Your task to perform on an android device: Show me productivity apps on the Play Store Image 0: 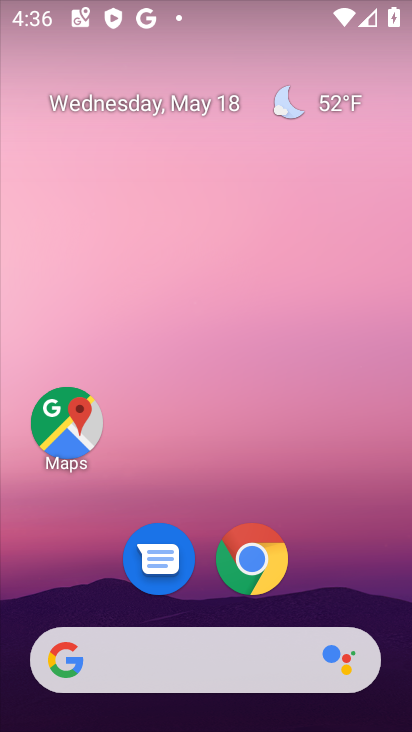
Step 0: drag from (192, 541) to (269, 25)
Your task to perform on an android device: Show me productivity apps on the Play Store Image 1: 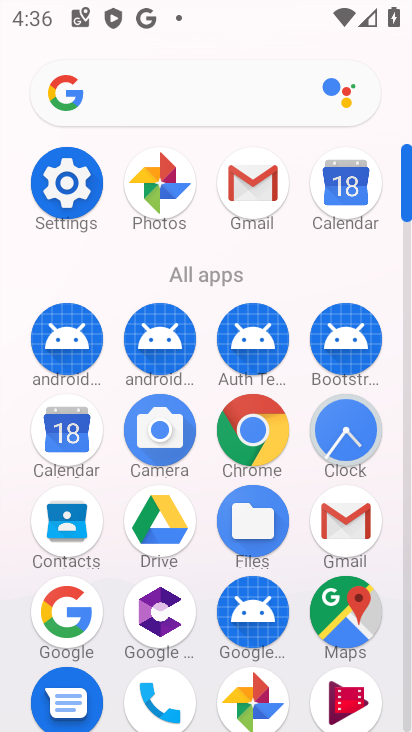
Step 1: drag from (183, 610) to (252, 124)
Your task to perform on an android device: Show me productivity apps on the Play Store Image 2: 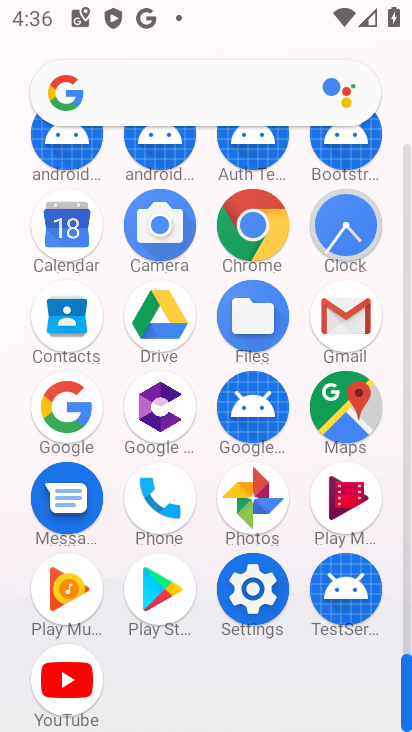
Step 2: click (148, 565)
Your task to perform on an android device: Show me productivity apps on the Play Store Image 3: 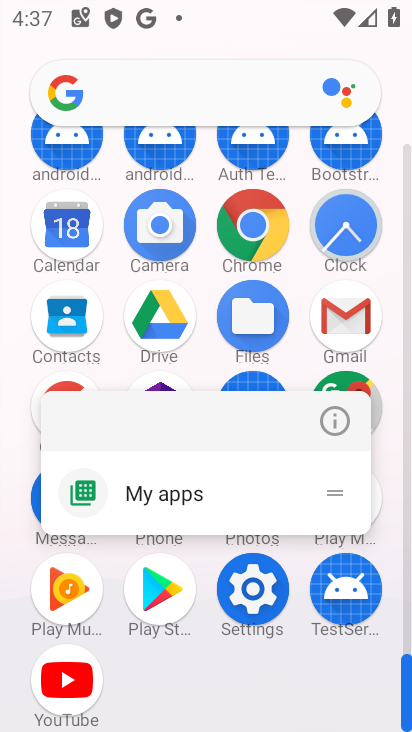
Step 3: click (156, 581)
Your task to perform on an android device: Show me productivity apps on the Play Store Image 4: 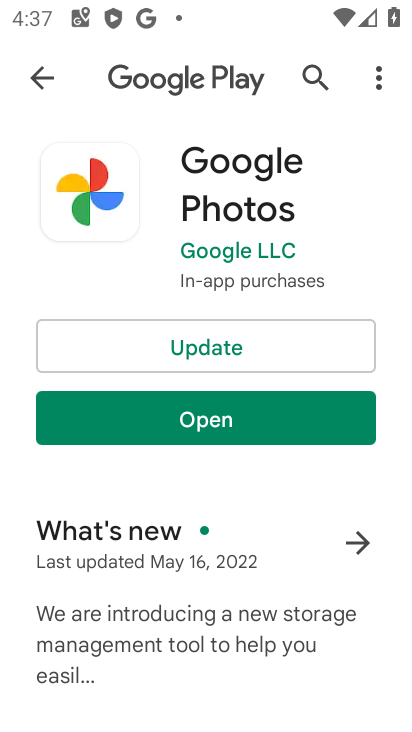
Step 4: click (45, 72)
Your task to perform on an android device: Show me productivity apps on the Play Store Image 5: 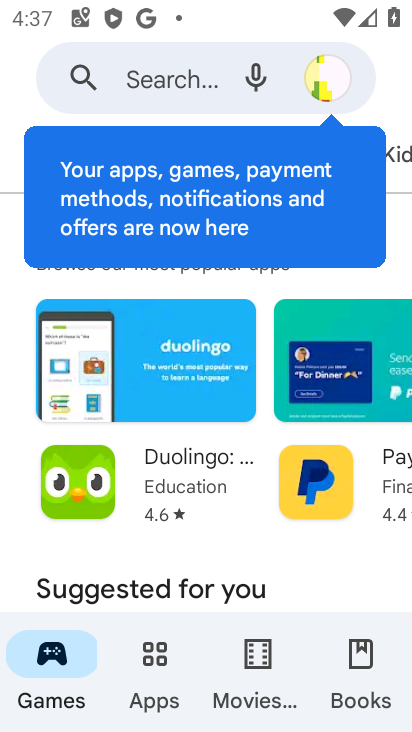
Step 5: click (149, 652)
Your task to perform on an android device: Show me productivity apps on the Play Store Image 6: 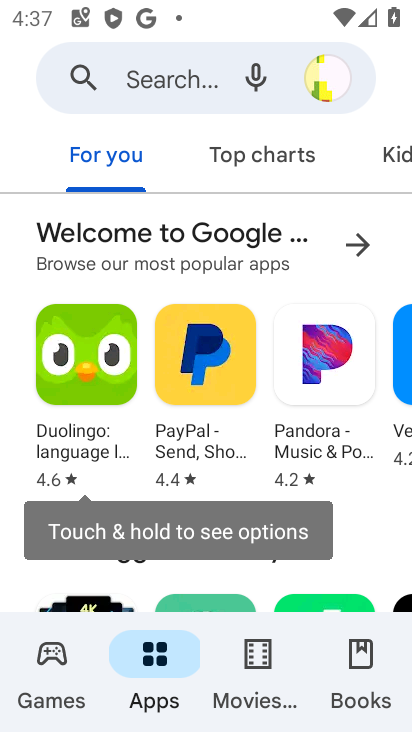
Step 6: drag from (195, 474) to (248, 123)
Your task to perform on an android device: Show me productivity apps on the Play Store Image 7: 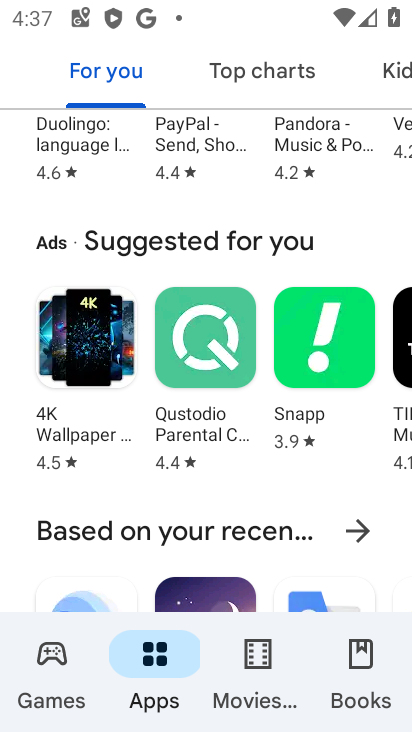
Step 7: drag from (182, 519) to (308, 29)
Your task to perform on an android device: Show me productivity apps on the Play Store Image 8: 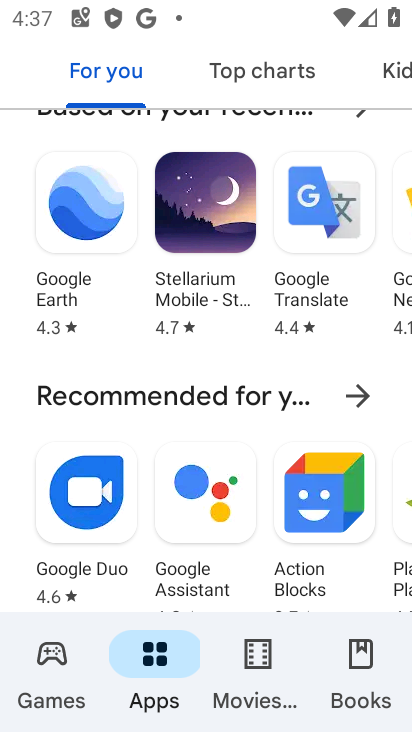
Step 8: drag from (220, 535) to (270, 209)
Your task to perform on an android device: Show me productivity apps on the Play Store Image 9: 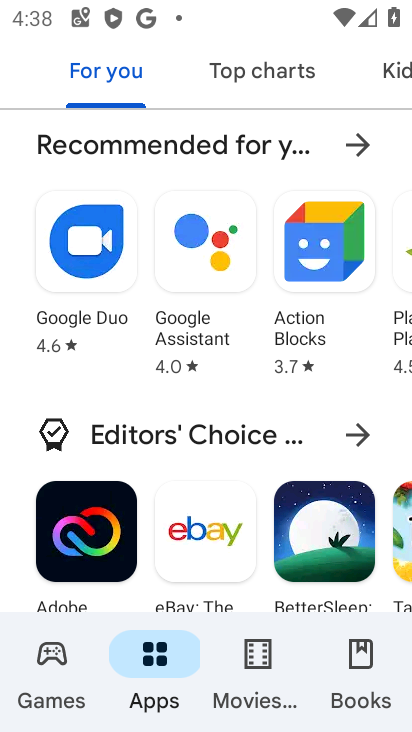
Step 9: drag from (215, 516) to (313, 100)
Your task to perform on an android device: Show me productivity apps on the Play Store Image 10: 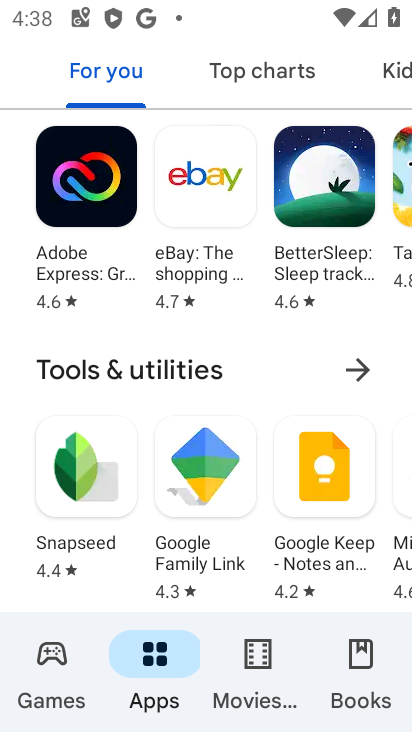
Step 10: drag from (207, 519) to (274, 50)
Your task to perform on an android device: Show me productivity apps on the Play Store Image 11: 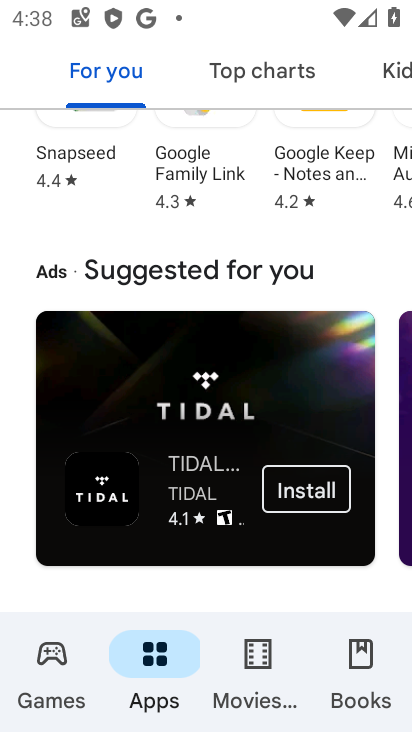
Step 11: drag from (185, 551) to (313, 27)
Your task to perform on an android device: Show me productivity apps on the Play Store Image 12: 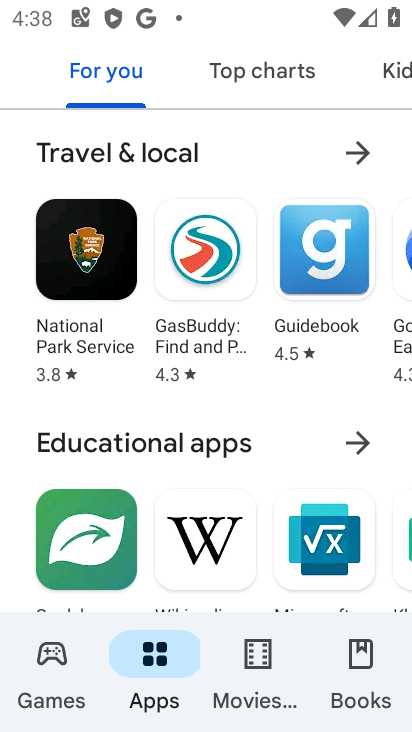
Step 12: drag from (234, 574) to (289, 164)
Your task to perform on an android device: Show me productivity apps on the Play Store Image 13: 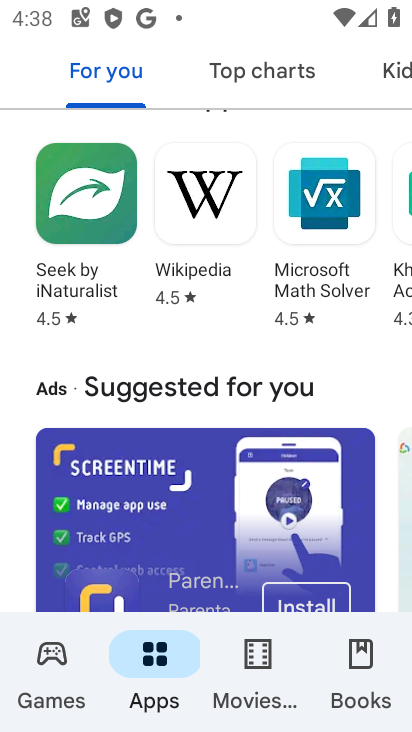
Step 13: drag from (207, 527) to (243, 39)
Your task to perform on an android device: Show me productivity apps on the Play Store Image 14: 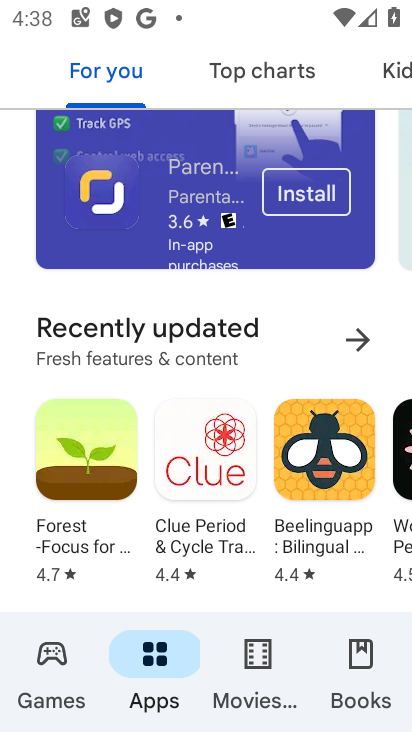
Step 14: drag from (242, 445) to (334, 20)
Your task to perform on an android device: Show me productivity apps on the Play Store Image 15: 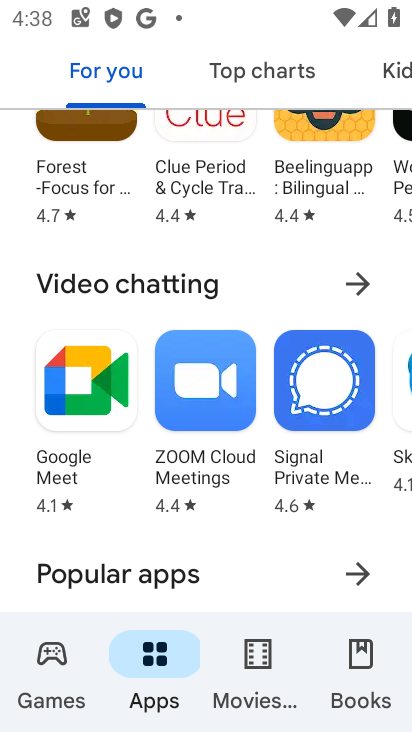
Step 15: drag from (223, 539) to (315, 90)
Your task to perform on an android device: Show me productivity apps on the Play Store Image 16: 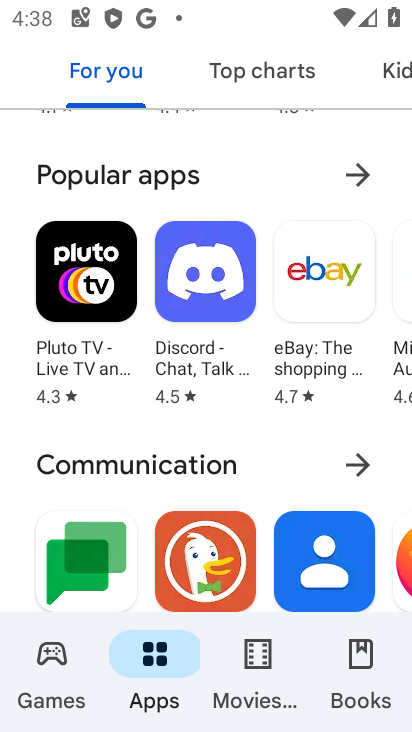
Step 16: drag from (217, 492) to (323, 7)
Your task to perform on an android device: Show me productivity apps on the Play Store Image 17: 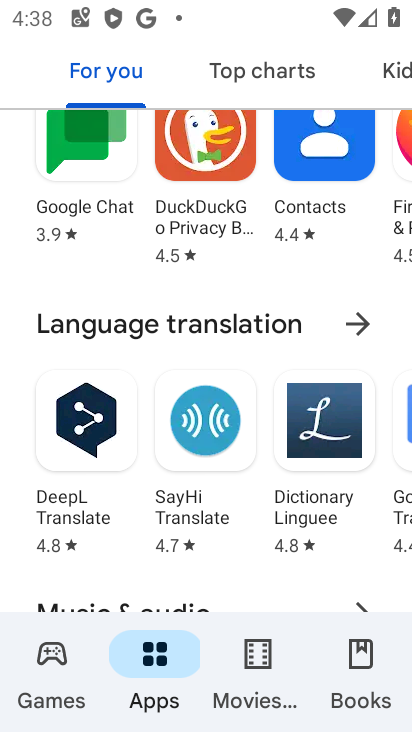
Step 17: drag from (203, 534) to (267, 85)
Your task to perform on an android device: Show me productivity apps on the Play Store Image 18: 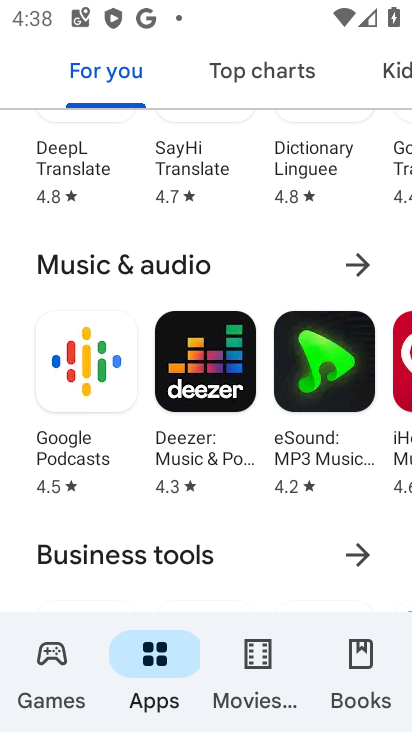
Step 18: drag from (198, 553) to (304, 128)
Your task to perform on an android device: Show me productivity apps on the Play Store Image 19: 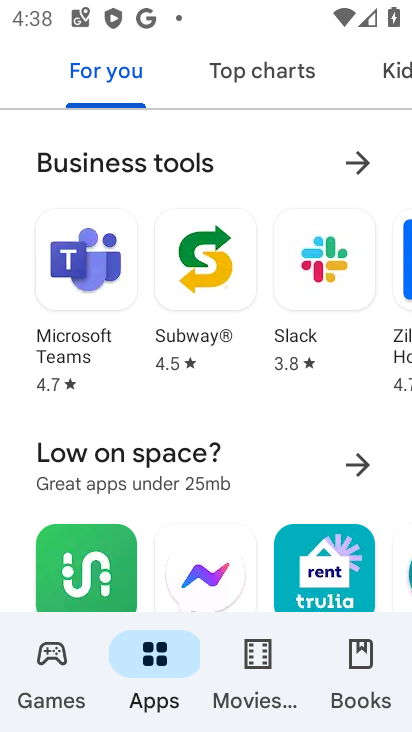
Step 19: drag from (232, 560) to (332, 70)
Your task to perform on an android device: Show me productivity apps on the Play Store Image 20: 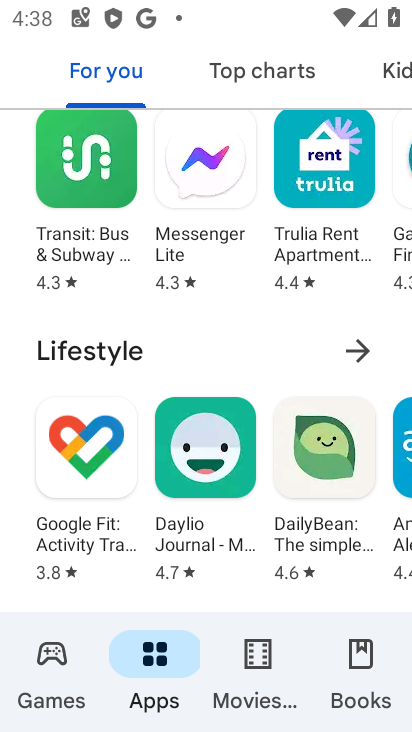
Step 20: drag from (232, 516) to (318, 34)
Your task to perform on an android device: Show me productivity apps on the Play Store Image 21: 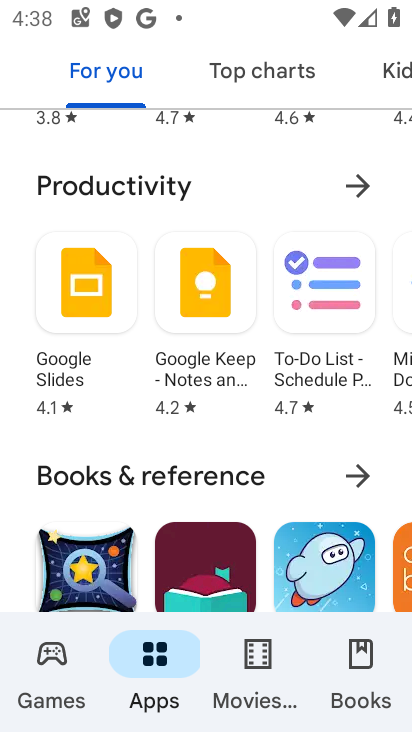
Step 21: click (364, 182)
Your task to perform on an android device: Show me productivity apps on the Play Store Image 22: 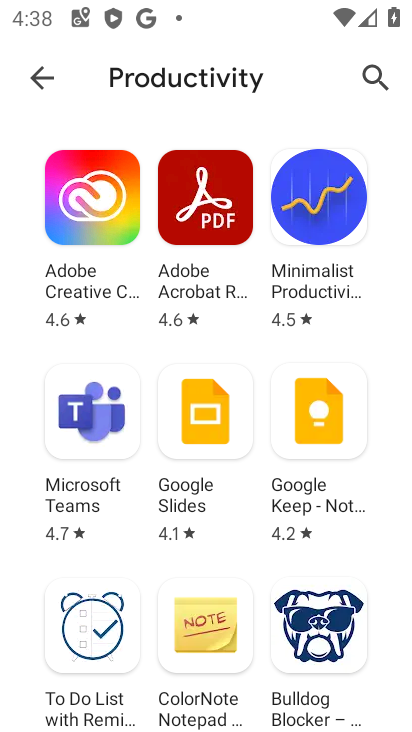
Step 22: task complete